Your task to perform on an android device: Open network settings Image 0: 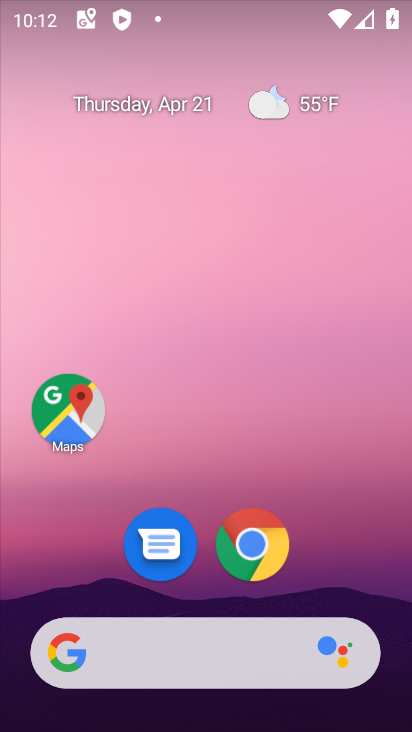
Step 0: drag from (319, 505) to (244, 62)
Your task to perform on an android device: Open network settings Image 1: 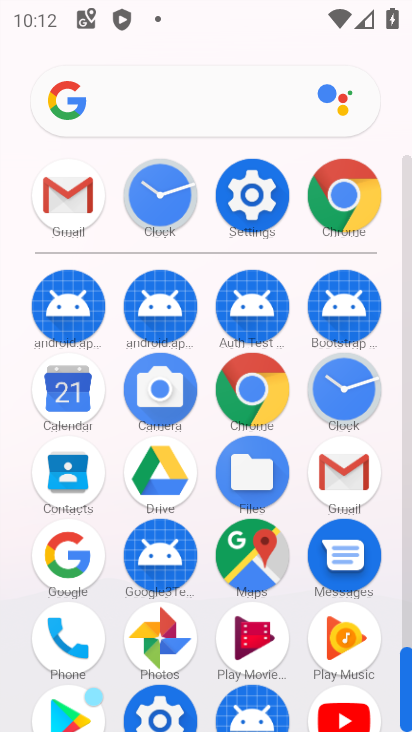
Step 1: click (247, 194)
Your task to perform on an android device: Open network settings Image 2: 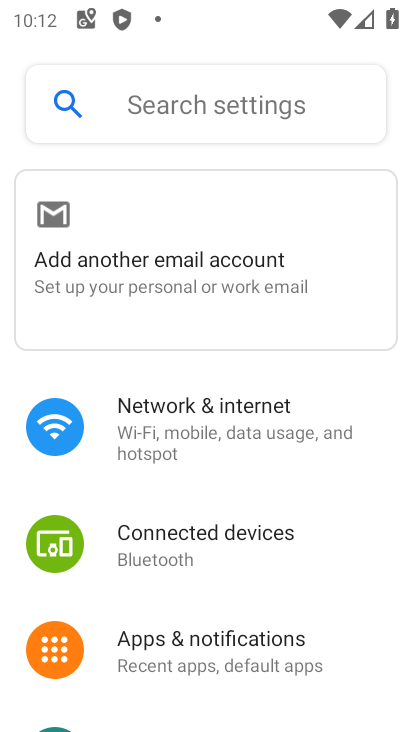
Step 2: click (218, 420)
Your task to perform on an android device: Open network settings Image 3: 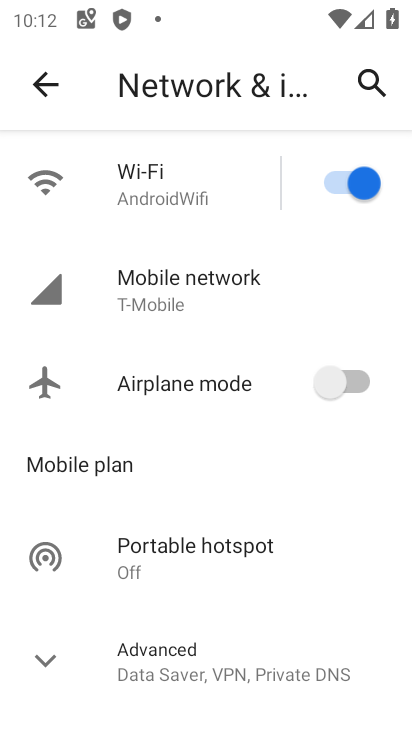
Step 3: drag from (156, 516) to (162, 181)
Your task to perform on an android device: Open network settings Image 4: 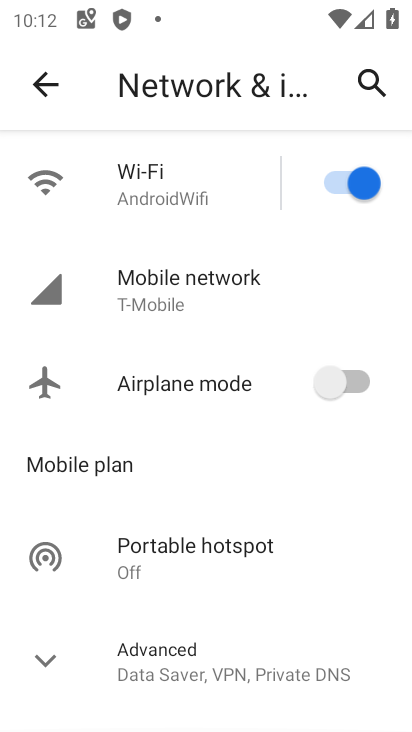
Step 4: click (37, 630)
Your task to perform on an android device: Open network settings Image 5: 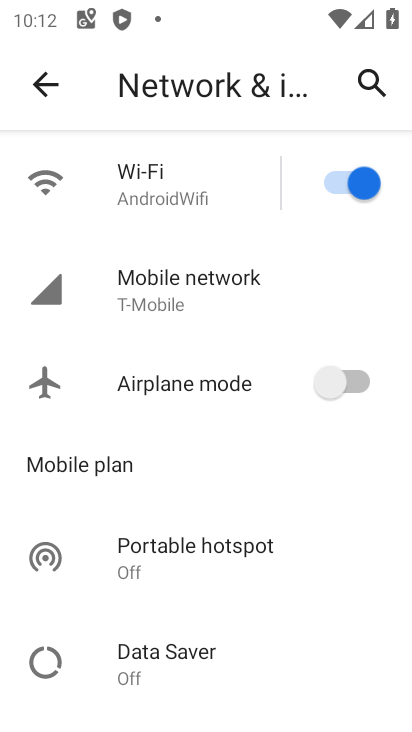
Step 5: task complete